Your task to perform on an android device: empty trash in the gmail app Image 0: 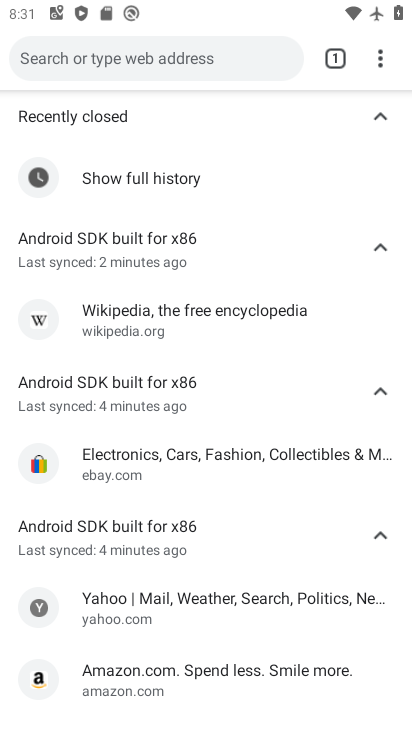
Step 0: press home button
Your task to perform on an android device: empty trash in the gmail app Image 1: 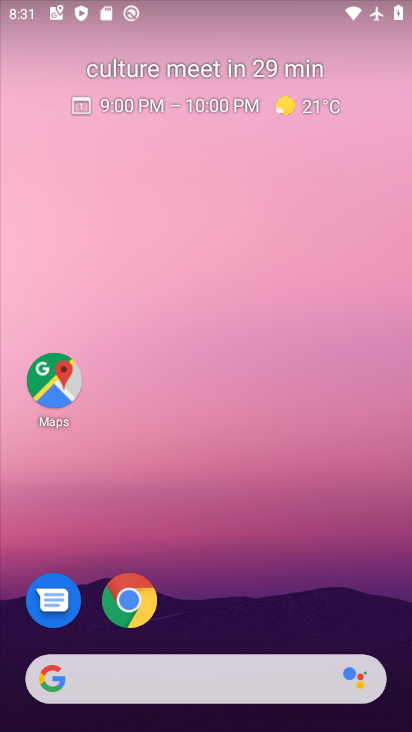
Step 1: drag from (339, 623) to (292, 71)
Your task to perform on an android device: empty trash in the gmail app Image 2: 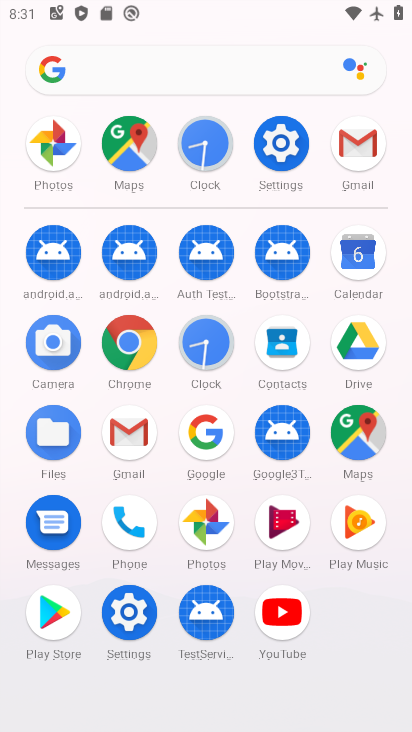
Step 2: click (132, 433)
Your task to perform on an android device: empty trash in the gmail app Image 3: 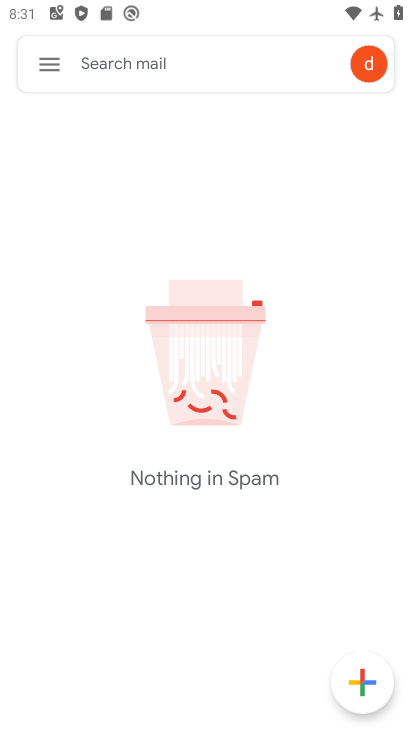
Step 3: click (50, 63)
Your task to perform on an android device: empty trash in the gmail app Image 4: 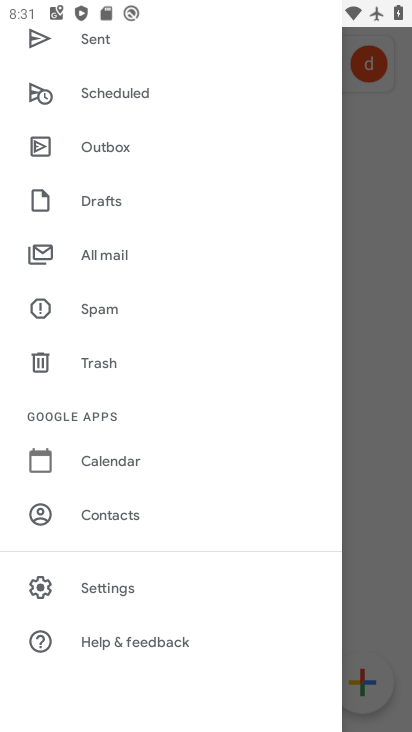
Step 4: click (94, 361)
Your task to perform on an android device: empty trash in the gmail app Image 5: 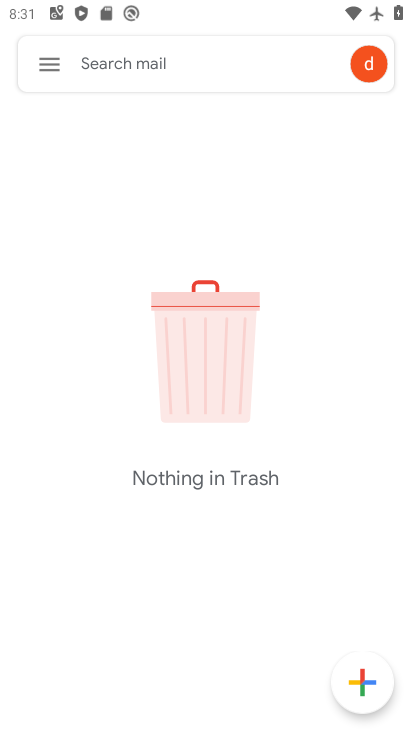
Step 5: task complete